Your task to perform on an android device: turn off priority inbox in the gmail app Image 0: 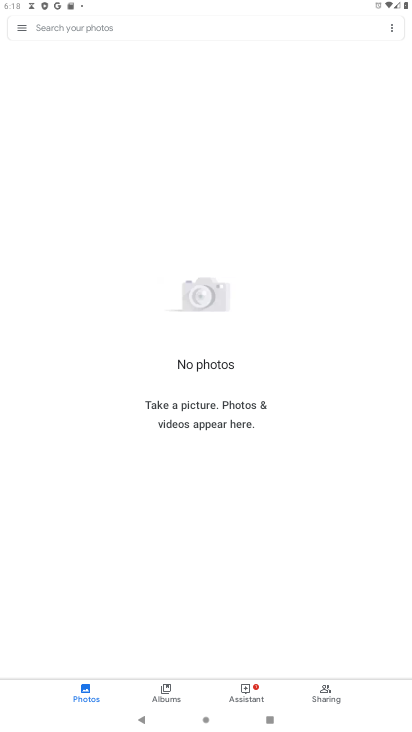
Step 0: press home button
Your task to perform on an android device: turn off priority inbox in the gmail app Image 1: 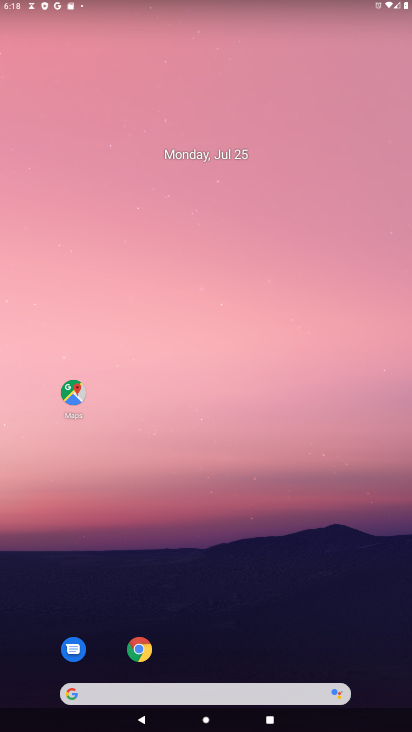
Step 1: drag from (222, 699) to (297, 40)
Your task to perform on an android device: turn off priority inbox in the gmail app Image 2: 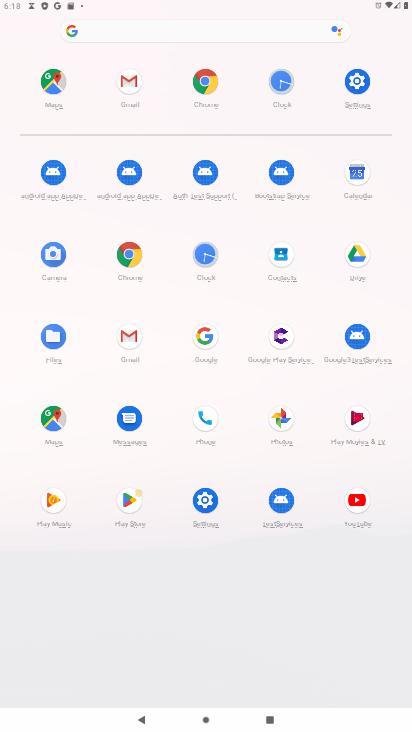
Step 2: click (138, 343)
Your task to perform on an android device: turn off priority inbox in the gmail app Image 3: 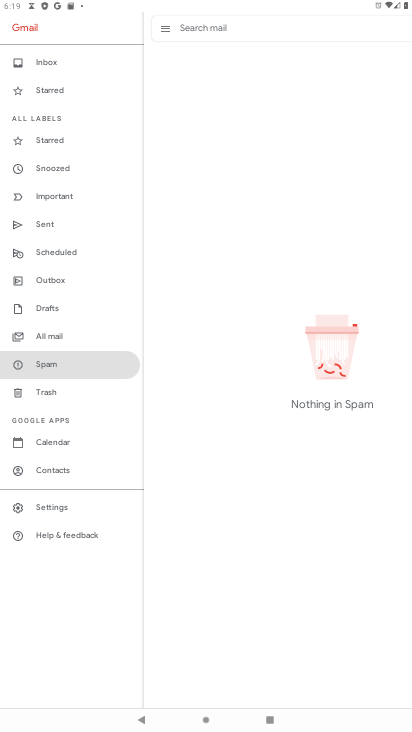
Step 3: click (61, 509)
Your task to perform on an android device: turn off priority inbox in the gmail app Image 4: 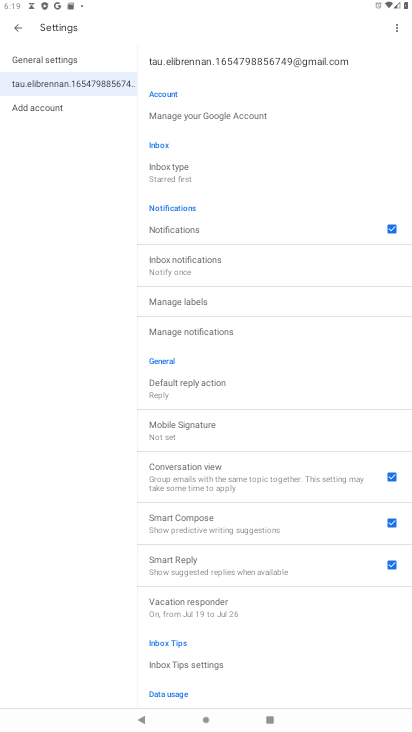
Step 4: drag from (219, 130) to (220, 436)
Your task to perform on an android device: turn off priority inbox in the gmail app Image 5: 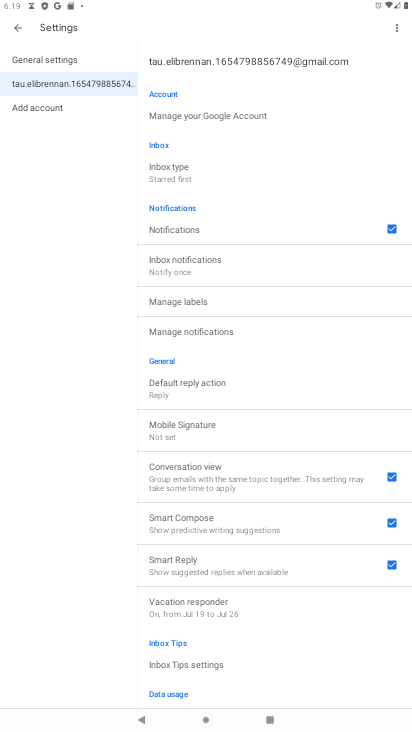
Step 5: click (184, 177)
Your task to perform on an android device: turn off priority inbox in the gmail app Image 6: 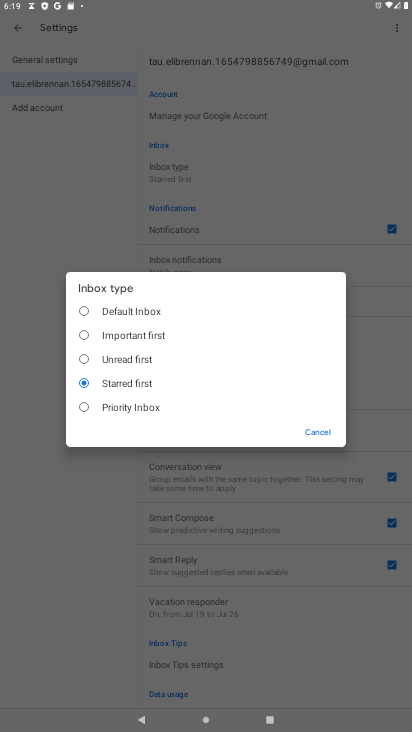
Step 6: click (88, 308)
Your task to perform on an android device: turn off priority inbox in the gmail app Image 7: 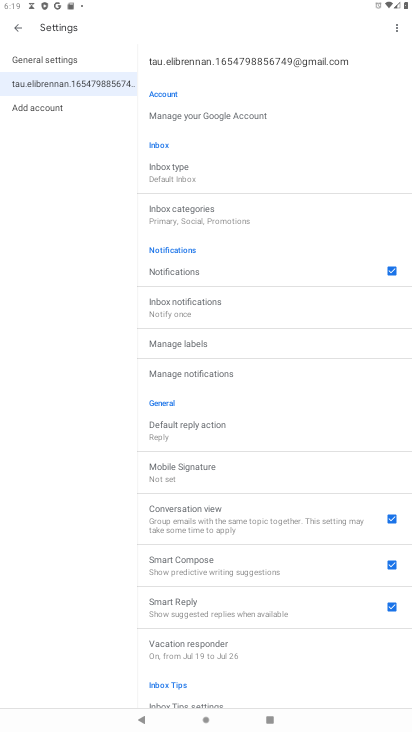
Step 7: task complete